Your task to perform on an android device: Go to eBay Image 0: 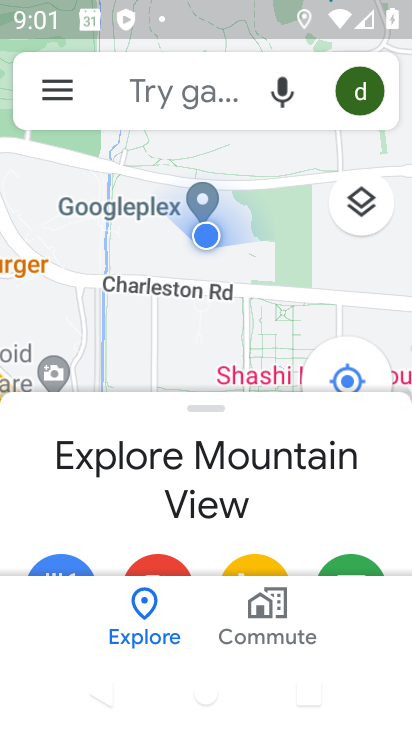
Step 0: press home button
Your task to perform on an android device: Go to eBay Image 1: 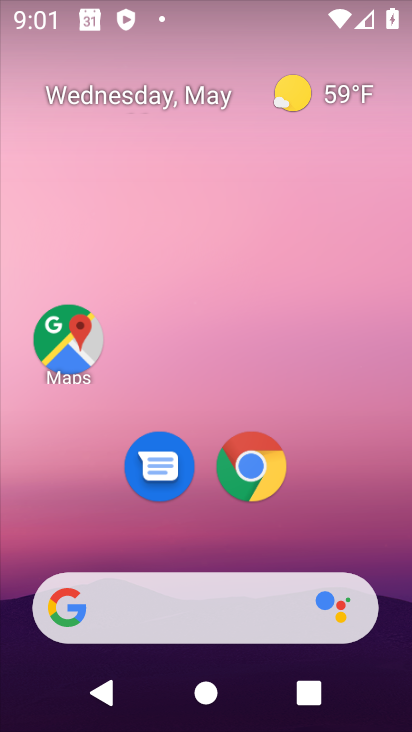
Step 1: drag from (342, 538) to (349, 152)
Your task to perform on an android device: Go to eBay Image 2: 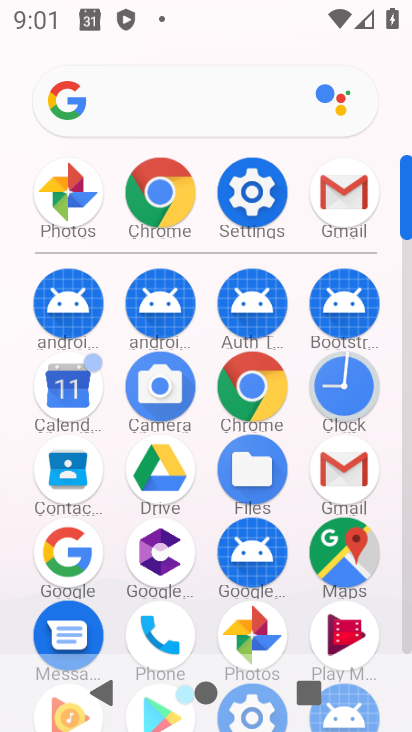
Step 2: click (166, 191)
Your task to perform on an android device: Go to eBay Image 3: 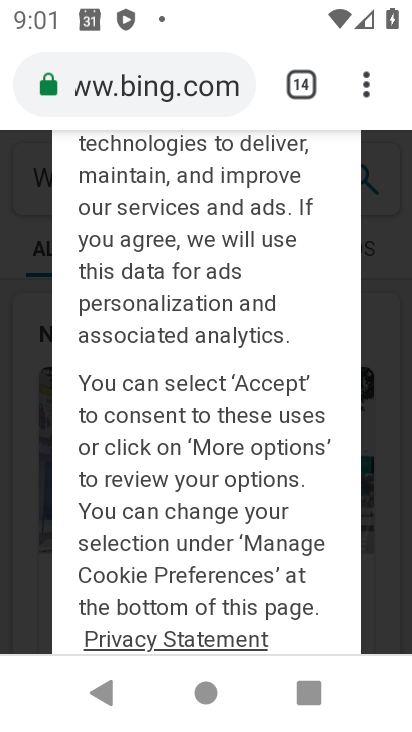
Step 3: click (352, 76)
Your task to perform on an android device: Go to eBay Image 4: 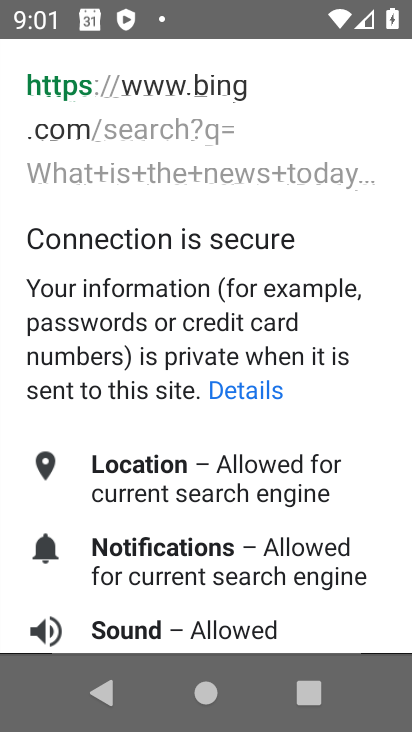
Step 4: press back button
Your task to perform on an android device: Go to eBay Image 5: 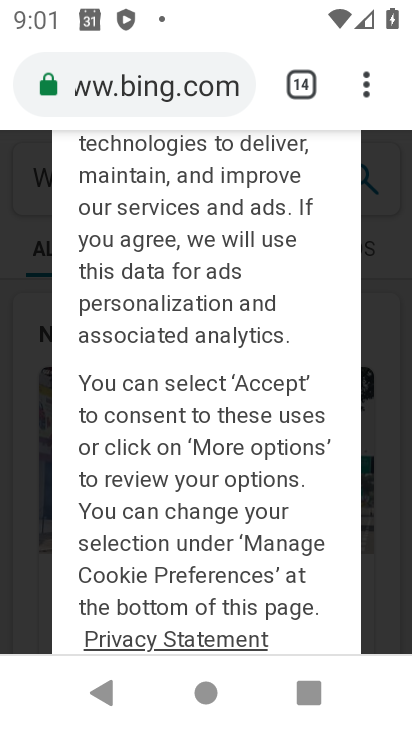
Step 5: click (344, 83)
Your task to perform on an android device: Go to eBay Image 6: 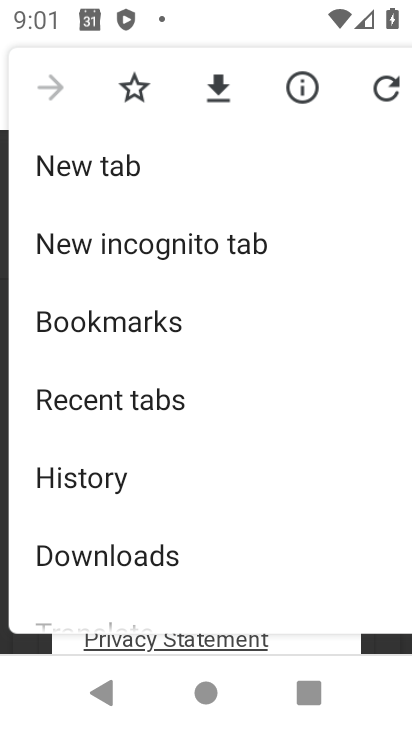
Step 6: click (133, 173)
Your task to perform on an android device: Go to eBay Image 7: 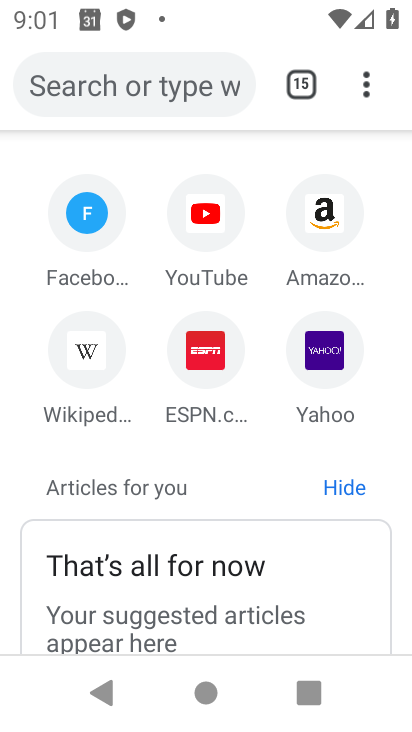
Step 7: click (122, 59)
Your task to perform on an android device: Go to eBay Image 8: 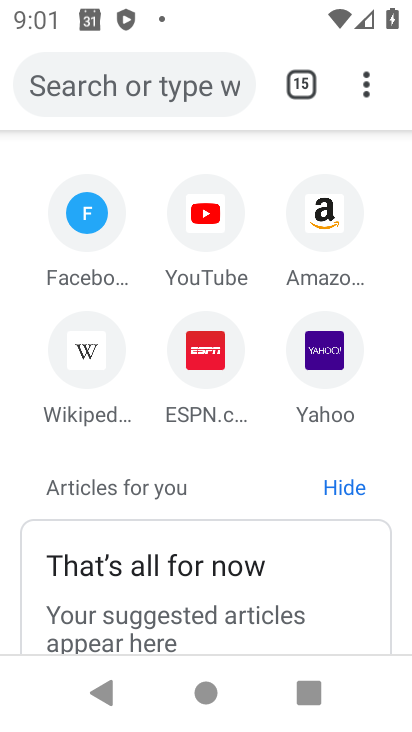
Step 8: click (156, 79)
Your task to perform on an android device: Go to eBay Image 9: 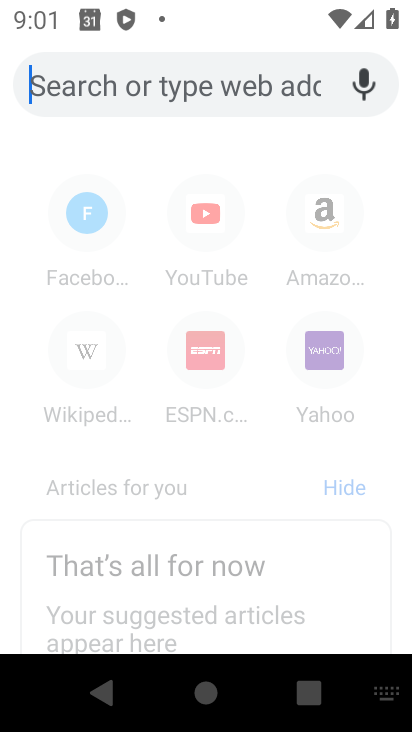
Step 9: type "eBay"
Your task to perform on an android device: Go to eBay Image 10: 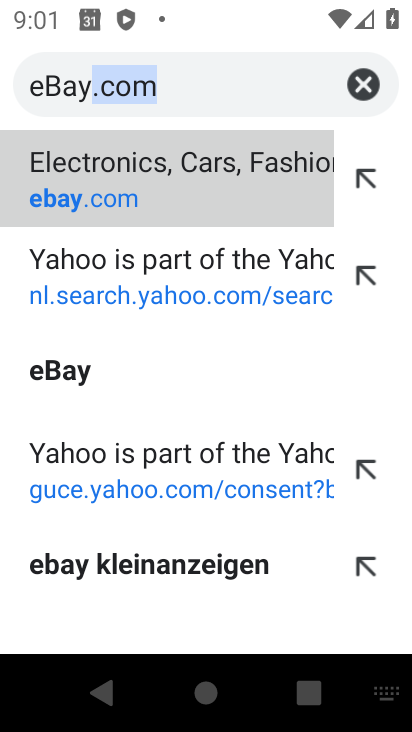
Step 10: click (79, 369)
Your task to perform on an android device: Go to eBay Image 11: 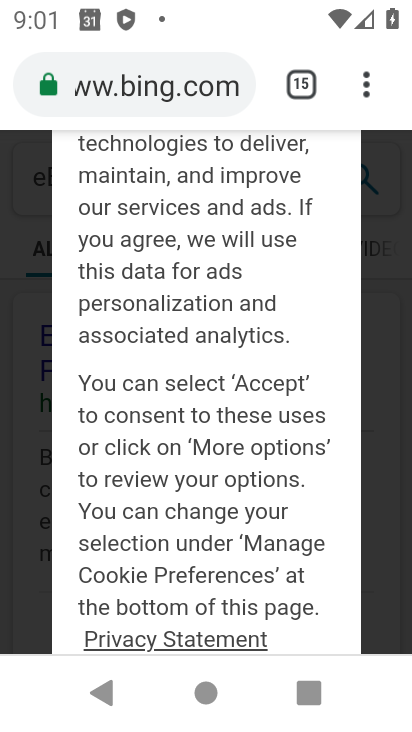
Step 11: task complete